Your task to perform on an android device: Go to network settings Image 0: 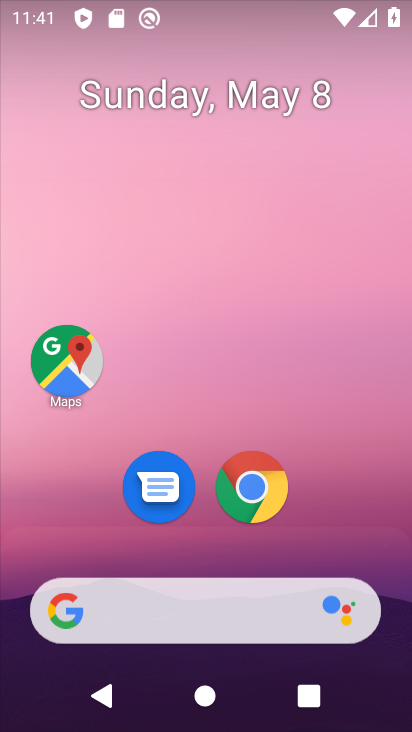
Step 0: drag from (327, 531) to (303, 129)
Your task to perform on an android device: Go to network settings Image 1: 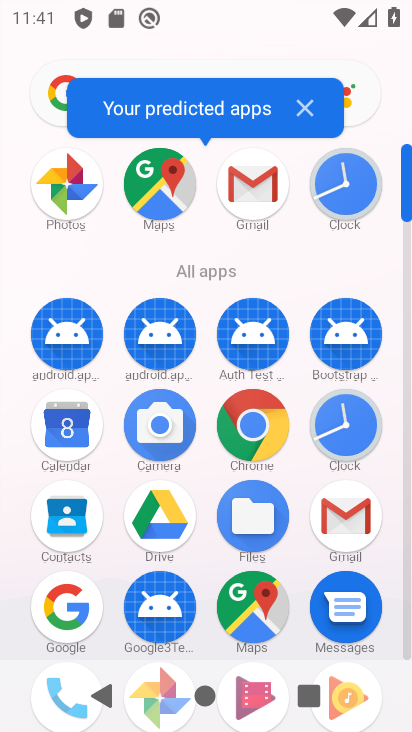
Step 1: drag from (206, 602) to (234, 188)
Your task to perform on an android device: Go to network settings Image 2: 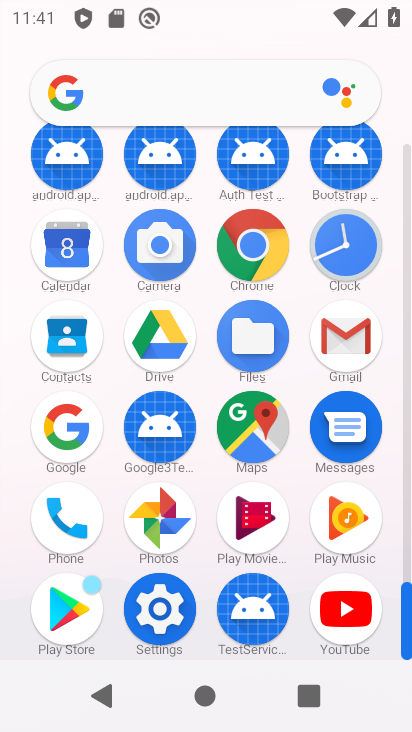
Step 2: click (172, 604)
Your task to perform on an android device: Go to network settings Image 3: 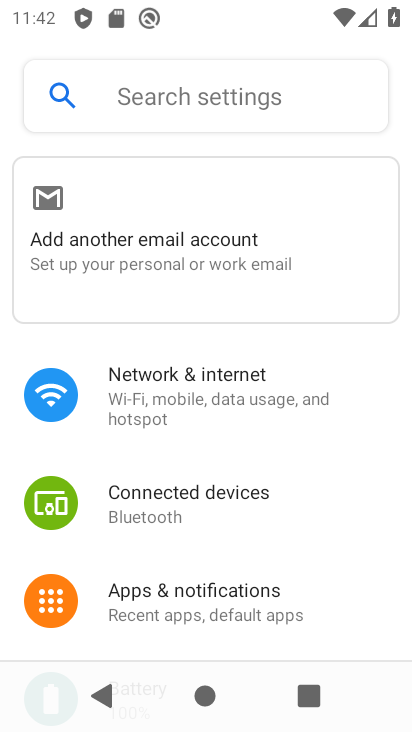
Step 3: click (212, 391)
Your task to perform on an android device: Go to network settings Image 4: 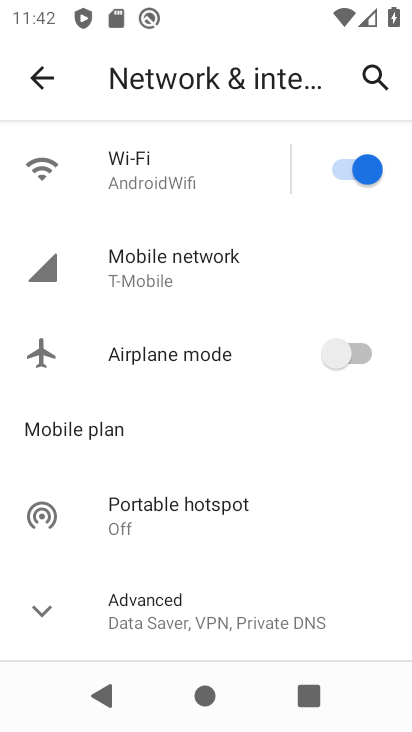
Step 4: task complete